Your task to perform on an android device: refresh tabs in the chrome app Image 0: 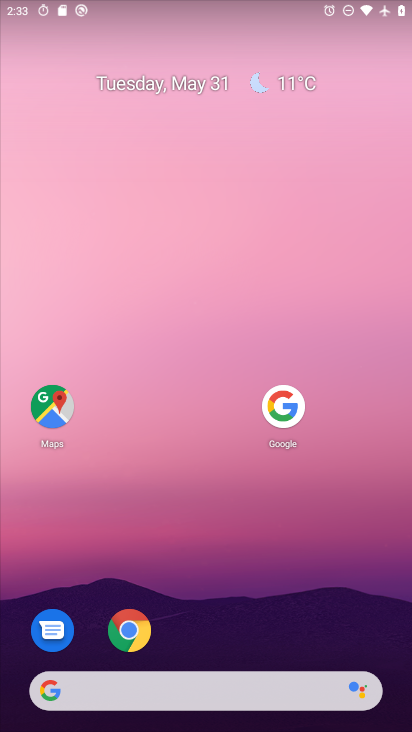
Step 0: press home button
Your task to perform on an android device: refresh tabs in the chrome app Image 1: 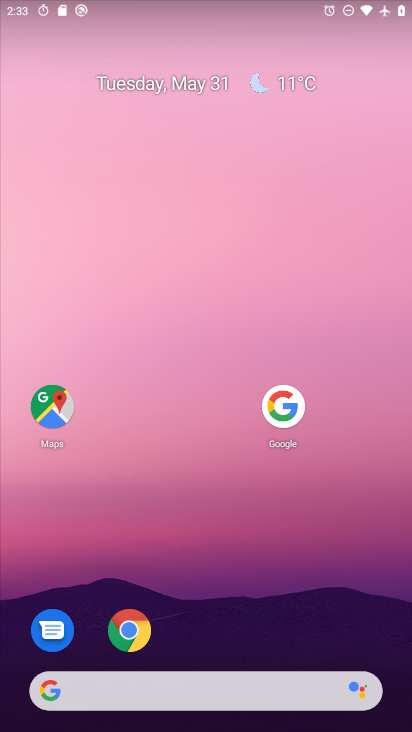
Step 1: click (124, 631)
Your task to perform on an android device: refresh tabs in the chrome app Image 2: 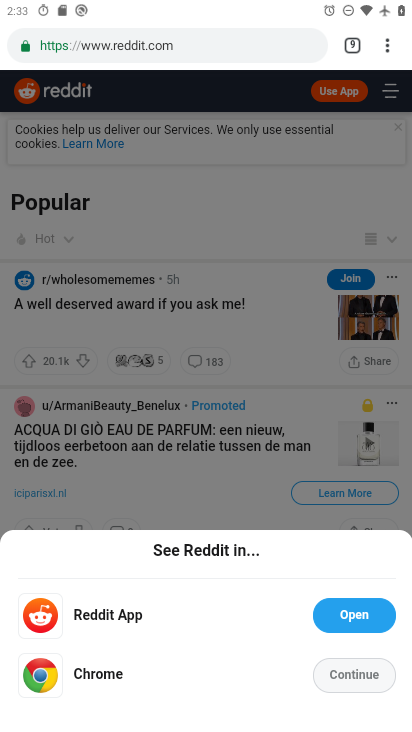
Step 2: click (384, 58)
Your task to perform on an android device: refresh tabs in the chrome app Image 3: 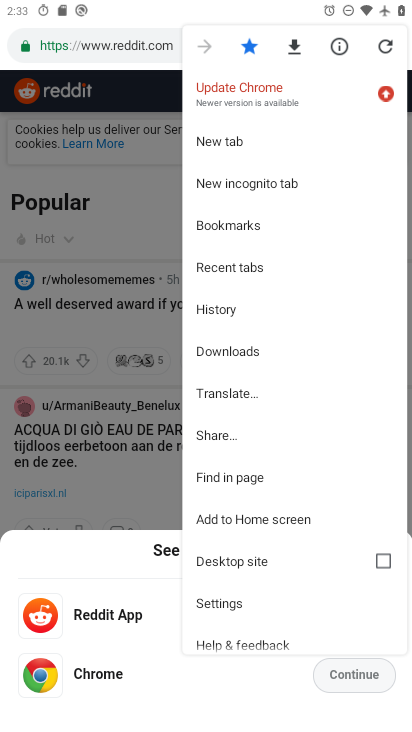
Step 3: click (384, 43)
Your task to perform on an android device: refresh tabs in the chrome app Image 4: 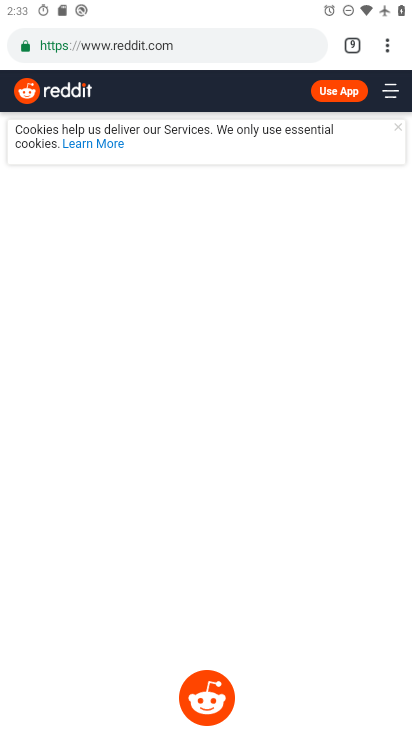
Step 4: task complete